Your task to perform on an android device: Is it going to rain tomorrow? Image 0: 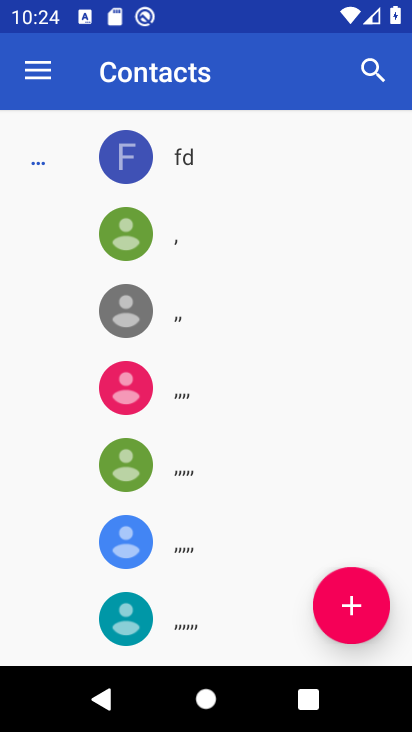
Step 0: press home button
Your task to perform on an android device: Is it going to rain tomorrow? Image 1: 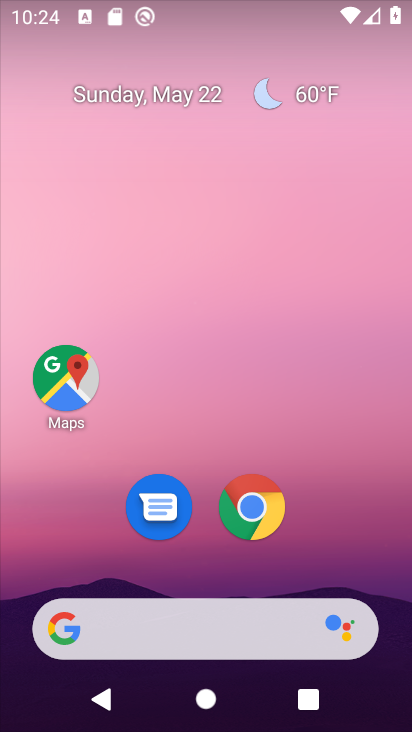
Step 1: click (137, 602)
Your task to perform on an android device: Is it going to rain tomorrow? Image 2: 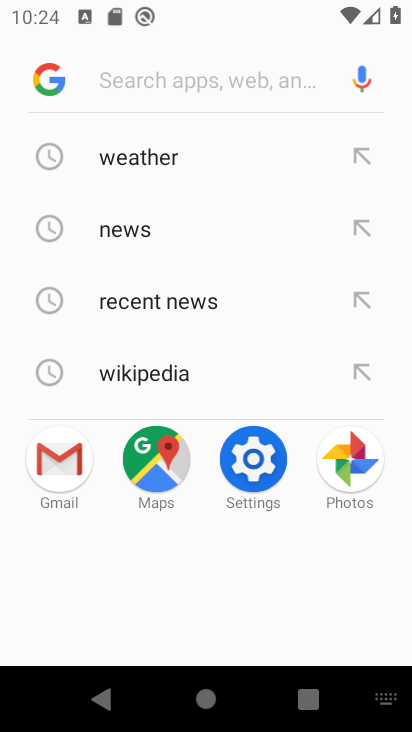
Step 2: click (158, 146)
Your task to perform on an android device: Is it going to rain tomorrow? Image 3: 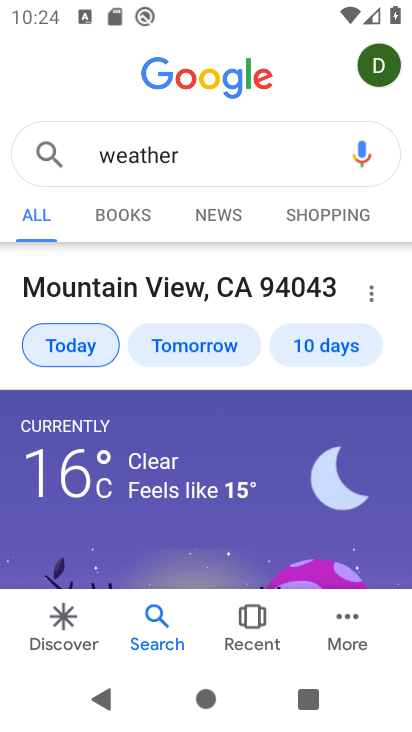
Step 3: click (198, 355)
Your task to perform on an android device: Is it going to rain tomorrow? Image 4: 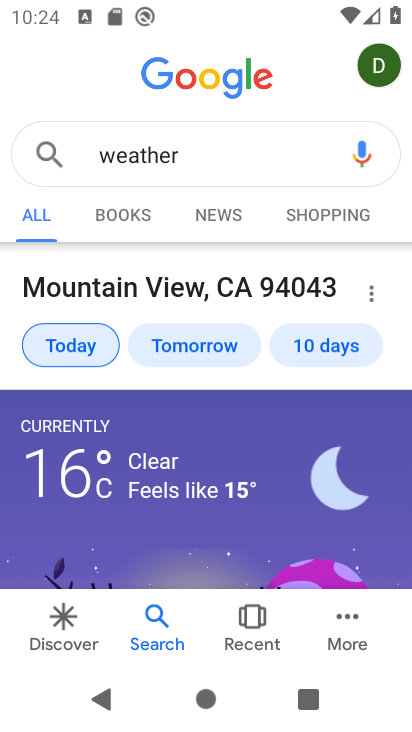
Step 4: click (198, 355)
Your task to perform on an android device: Is it going to rain tomorrow? Image 5: 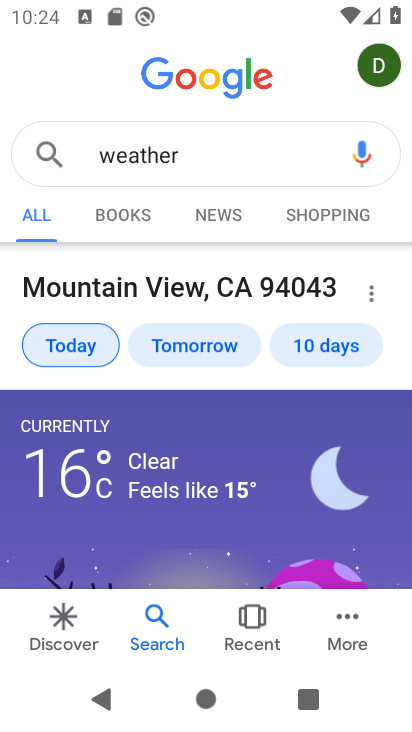
Step 5: click (198, 355)
Your task to perform on an android device: Is it going to rain tomorrow? Image 6: 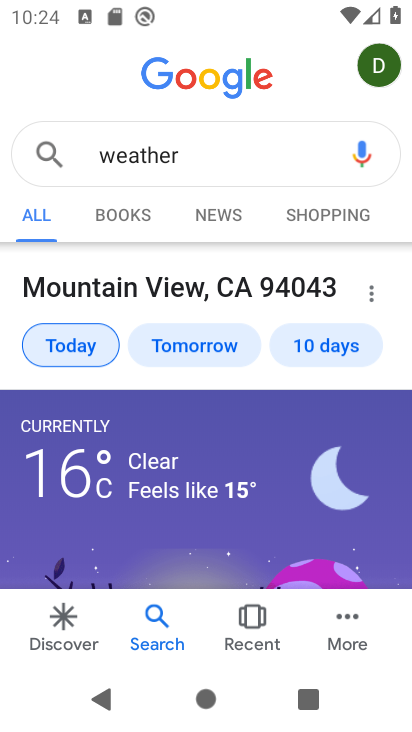
Step 6: click (128, 522)
Your task to perform on an android device: Is it going to rain tomorrow? Image 7: 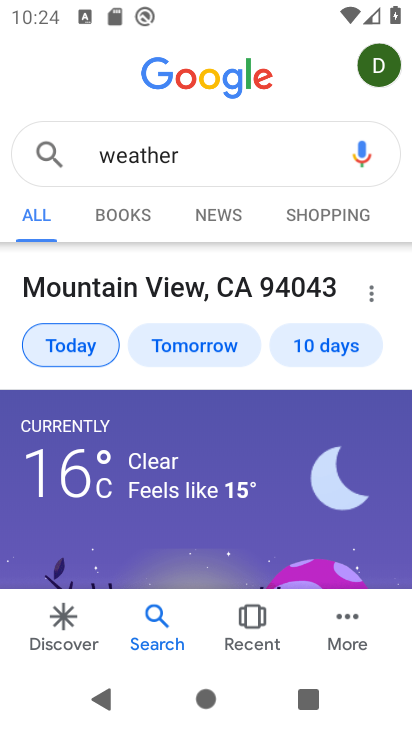
Step 7: drag from (95, 544) to (106, 10)
Your task to perform on an android device: Is it going to rain tomorrow? Image 8: 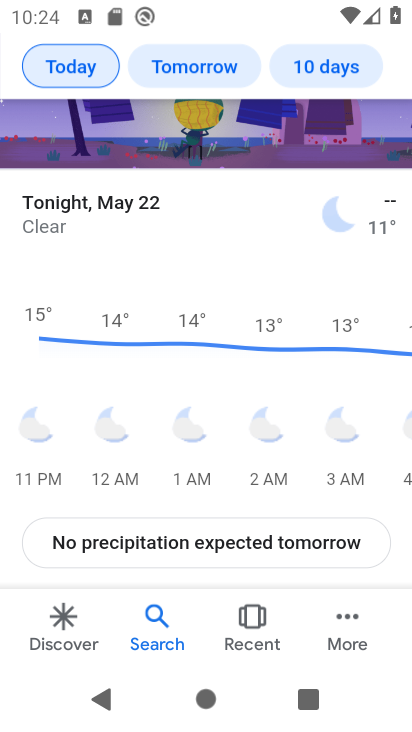
Step 8: drag from (97, 513) to (126, 233)
Your task to perform on an android device: Is it going to rain tomorrow? Image 9: 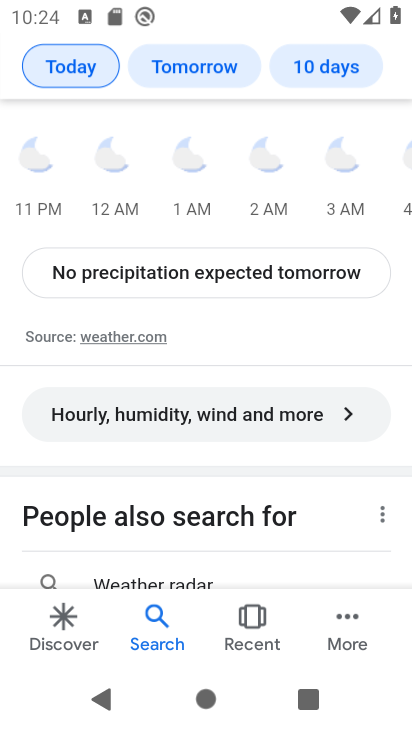
Step 9: click (100, 340)
Your task to perform on an android device: Is it going to rain tomorrow? Image 10: 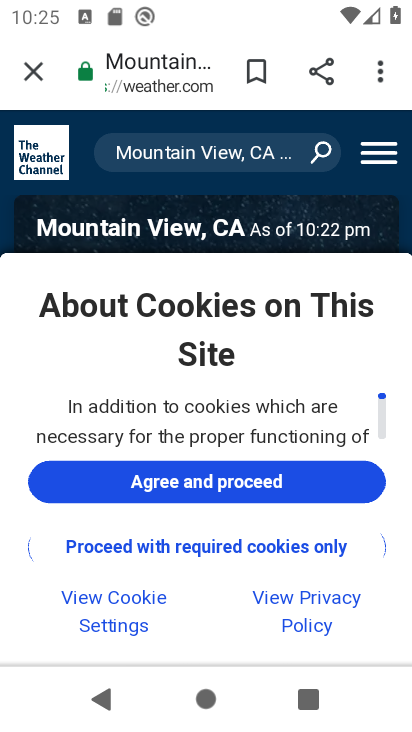
Step 10: click (225, 483)
Your task to perform on an android device: Is it going to rain tomorrow? Image 11: 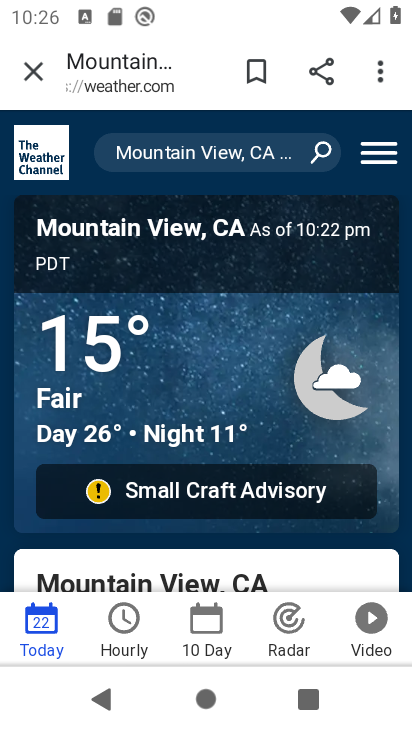
Step 11: click (206, 611)
Your task to perform on an android device: Is it going to rain tomorrow? Image 12: 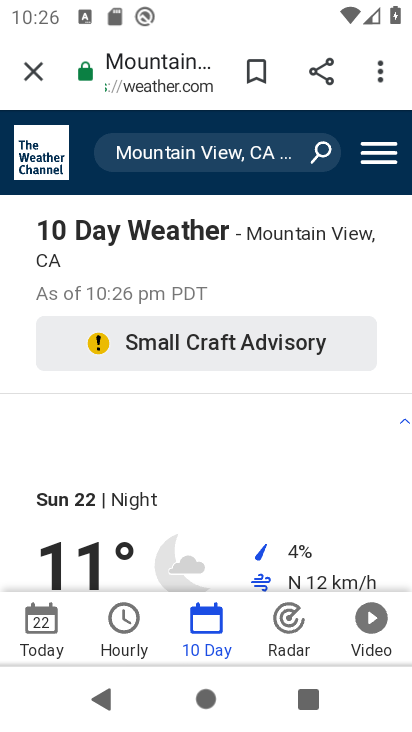
Step 12: task complete